Your task to perform on an android device: Clear the cart on ebay.com. Add "bose soundlink" to the cart on ebay.com Image 0: 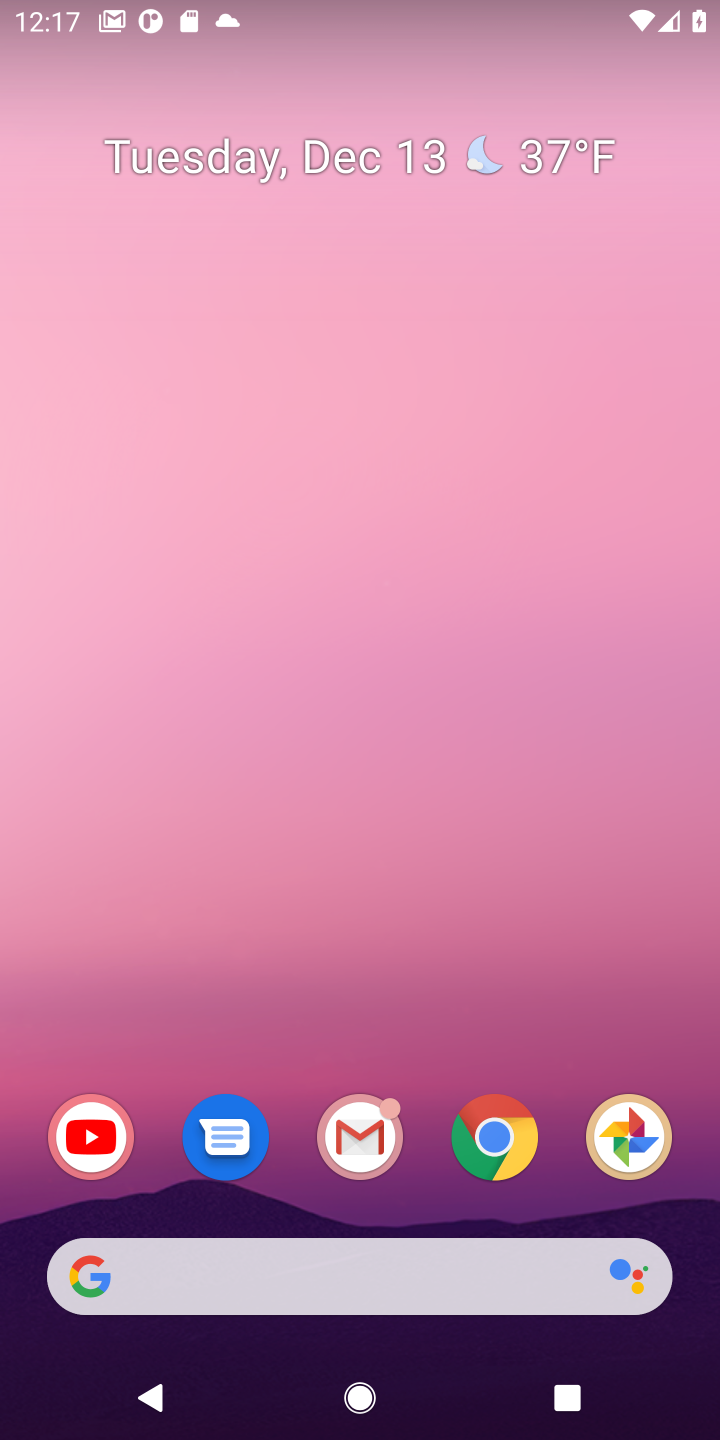
Step 0: click (444, 1241)
Your task to perform on an android device: Clear the cart on ebay.com. Add "bose soundlink" to the cart on ebay.com Image 1: 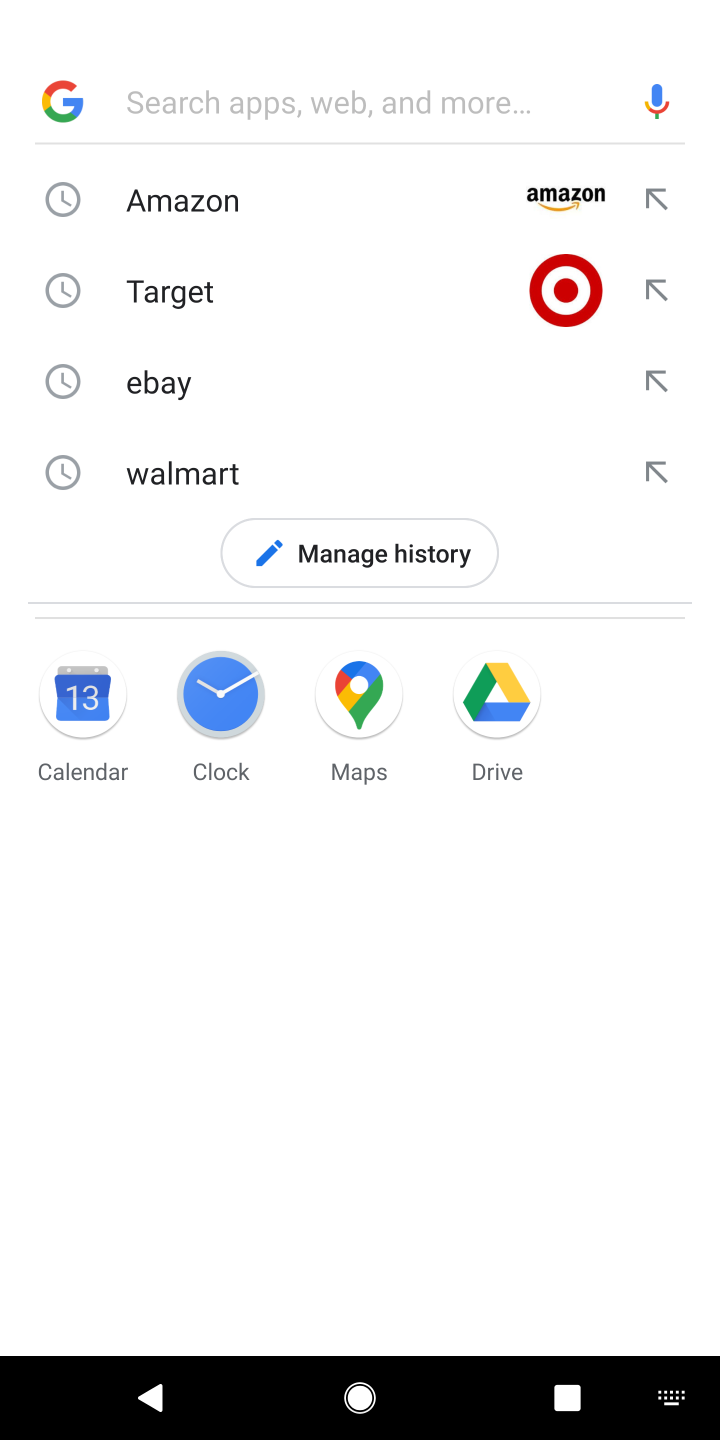
Step 1: click (239, 416)
Your task to perform on an android device: Clear the cart on ebay.com. Add "bose soundlink" to the cart on ebay.com Image 2: 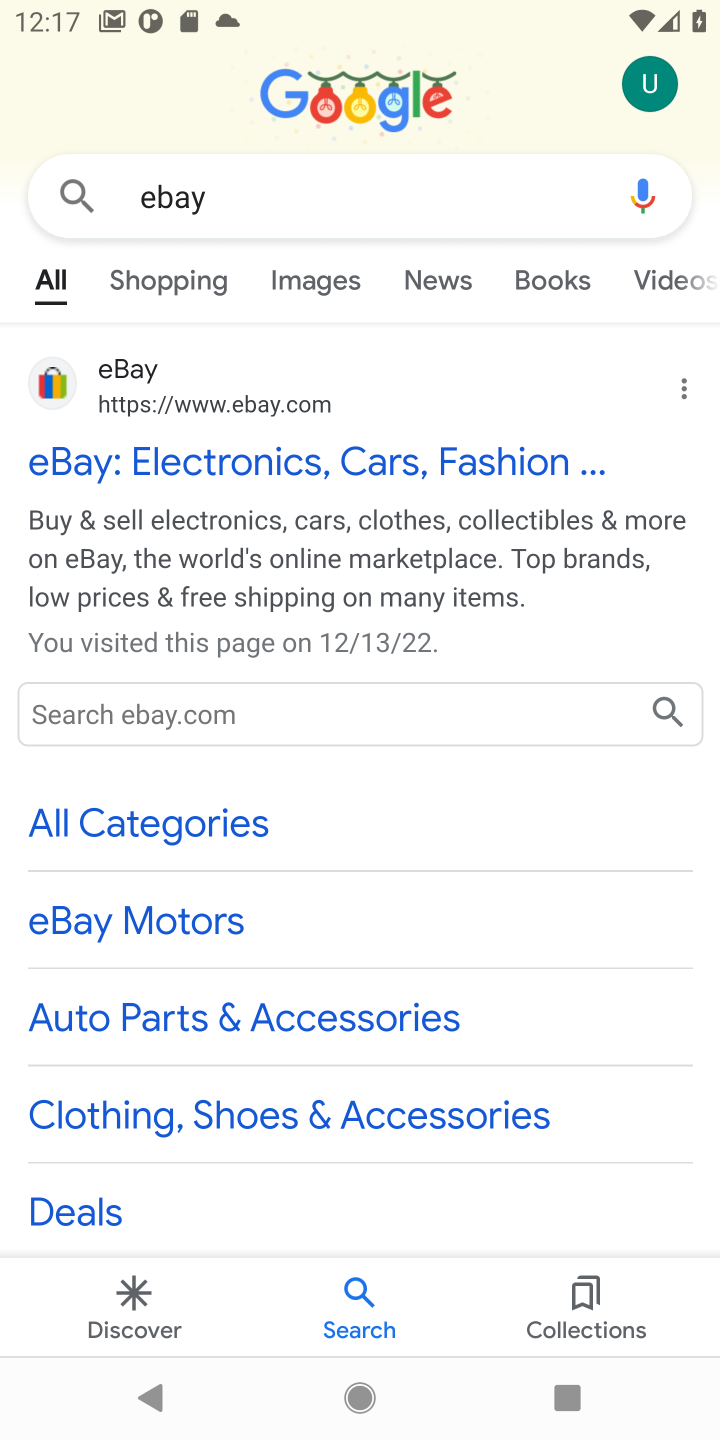
Step 2: click (163, 455)
Your task to perform on an android device: Clear the cart on ebay.com. Add "bose soundlink" to the cart on ebay.com Image 3: 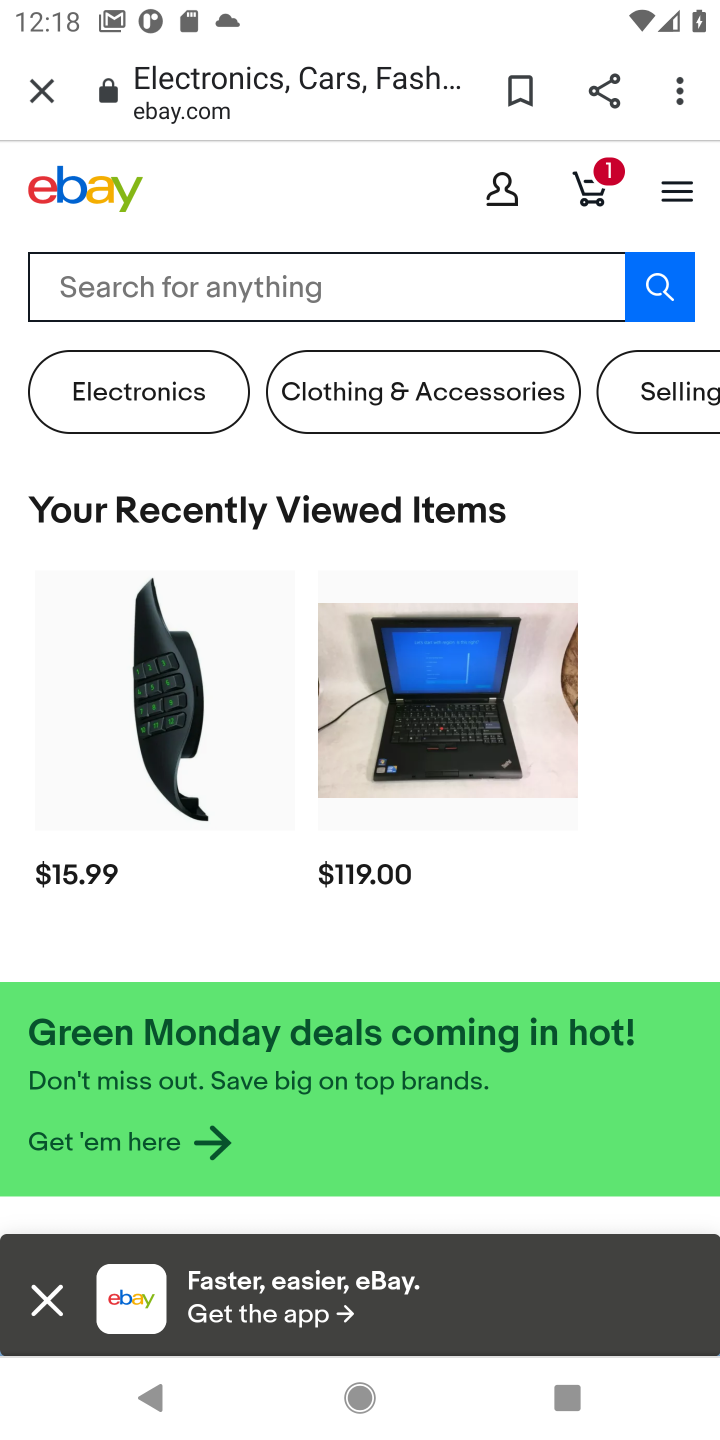
Step 3: click (205, 304)
Your task to perform on an android device: Clear the cart on ebay.com. Add "bose soundlink" to the cart on ebay.com Image 4: 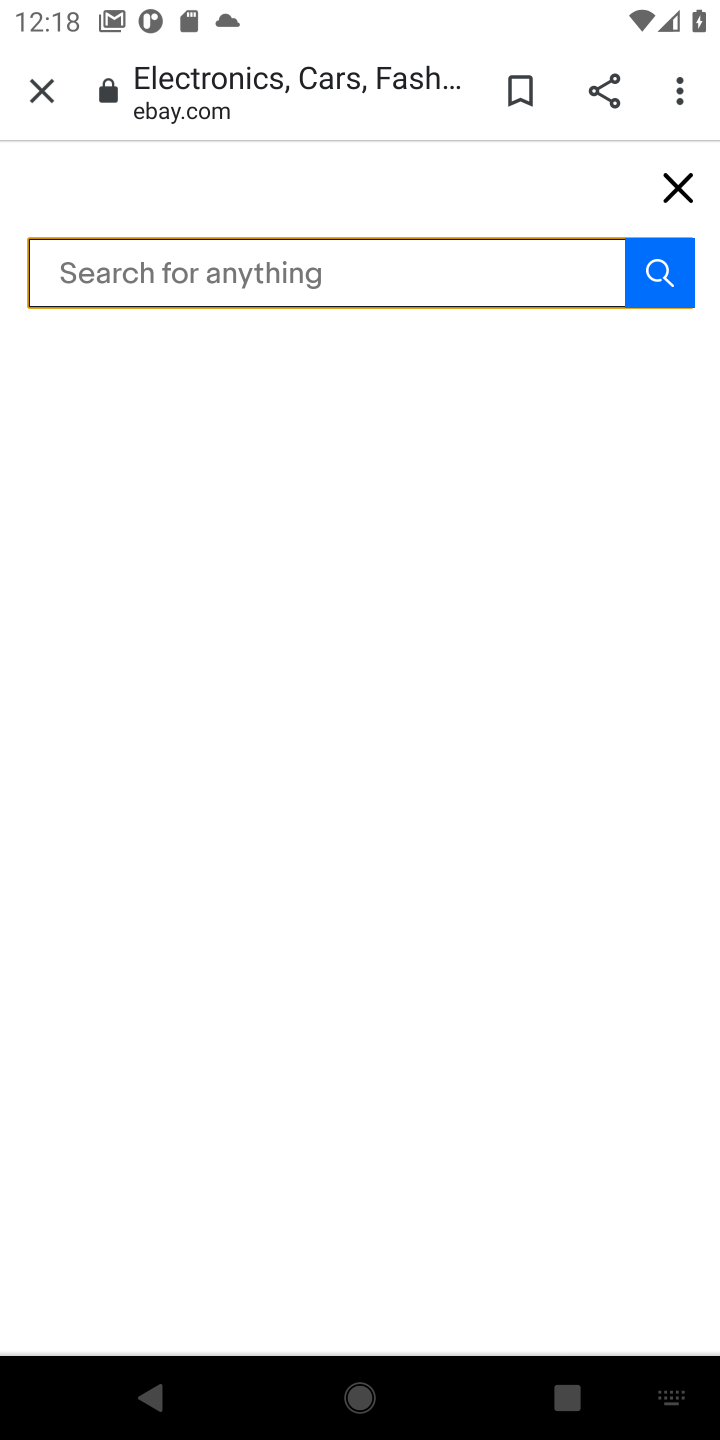
Step 4: type "bose soundlink"
Your task to perform on an android device: Clear the cart on ebay.com. Add "bose soundlink" to the cart on ebay.com Image 5: 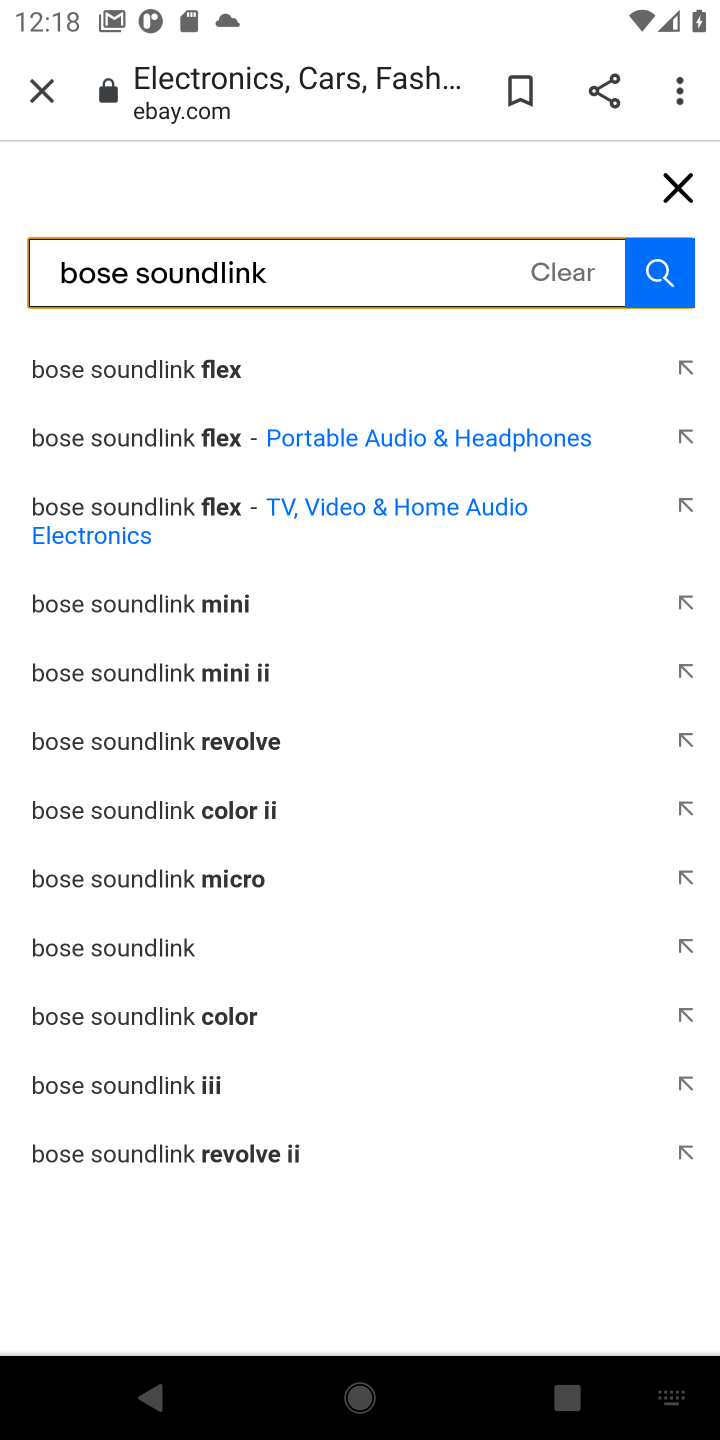
Step 5: click (208, 619)
Your task to perform on an android device: Clear the cart on ebay.com. Add "bose soundlink" to the cart on ebay.com Image 6: 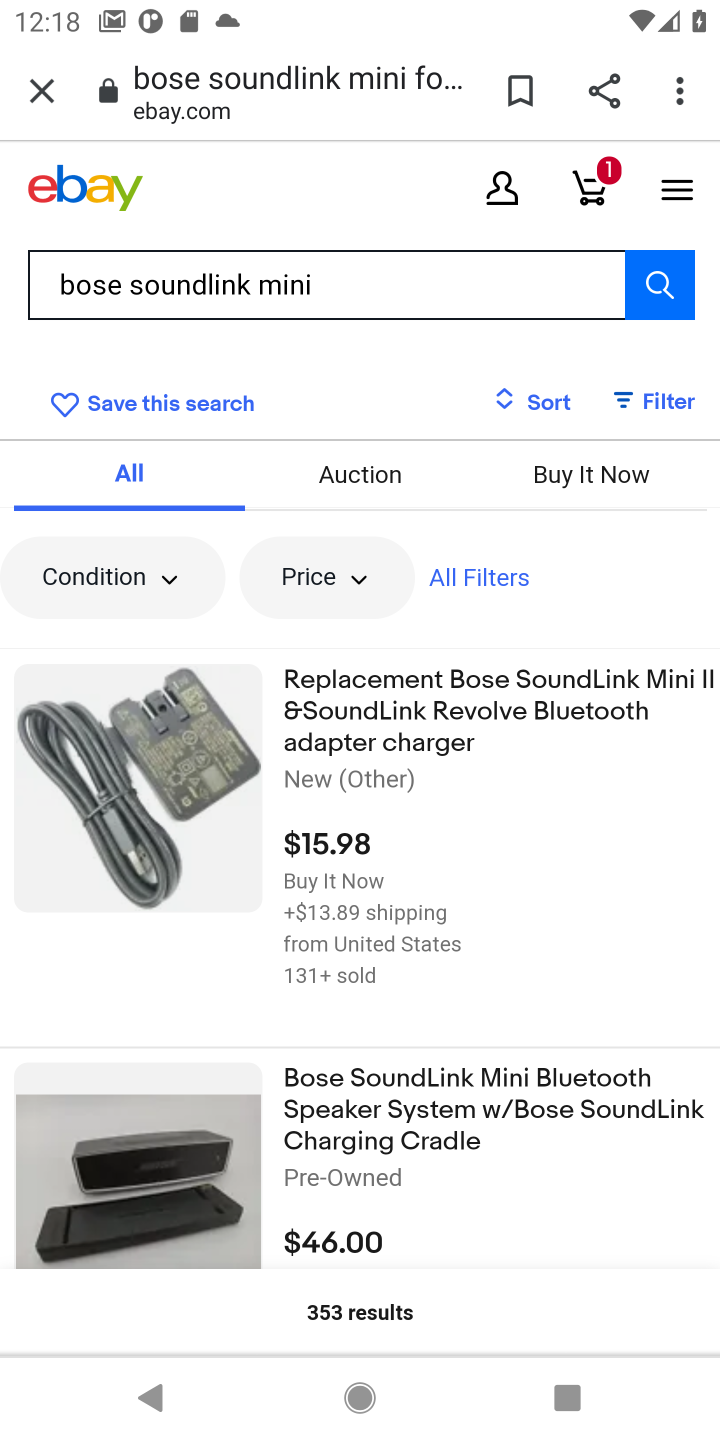
Step 6: click (674, 286)
Your task to perform on an android device: Clear the cart on ebay.com. Add "bose soundlink" to the cart on ebay.com Image 7: 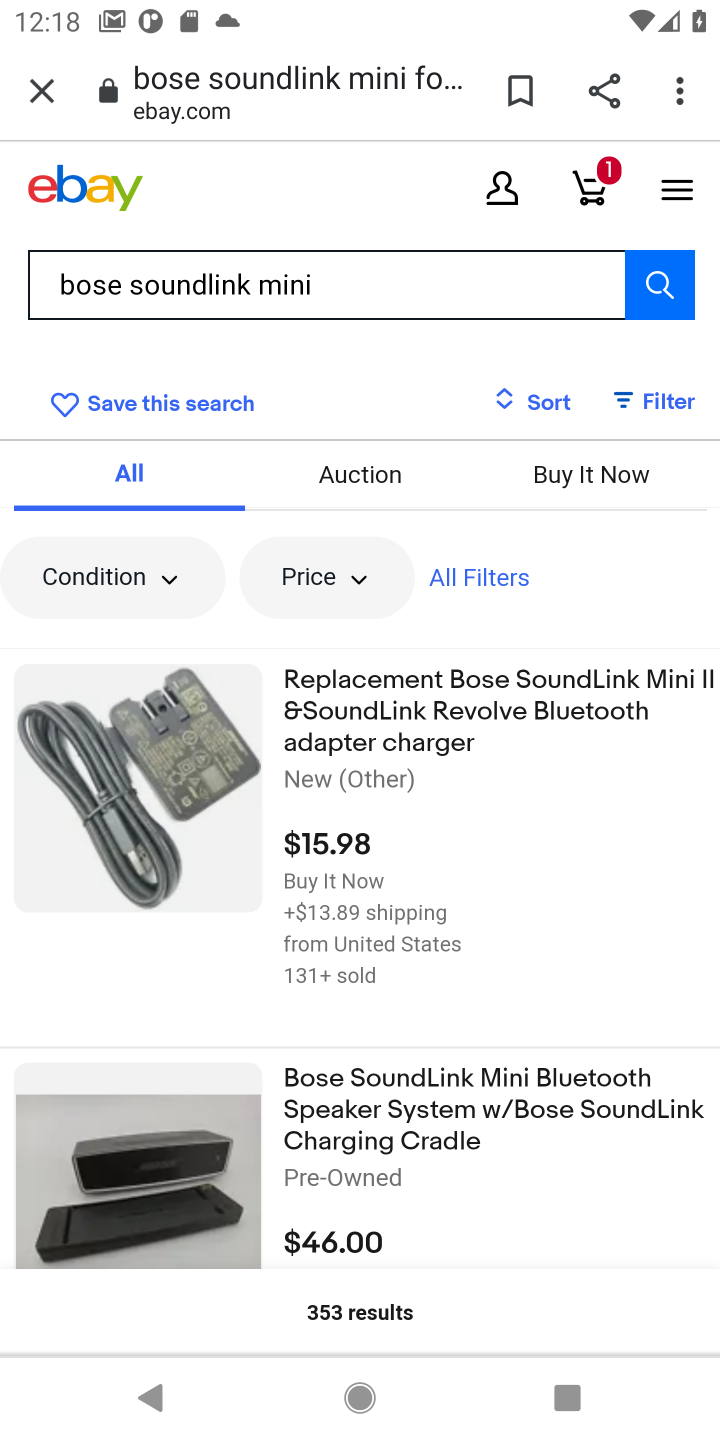
Step 7: click (469, 1126)
Your task to perform on an android device: Clear the cart on ebay.com. Add "bose soundlink" to the cart on ebay.com Image 8: 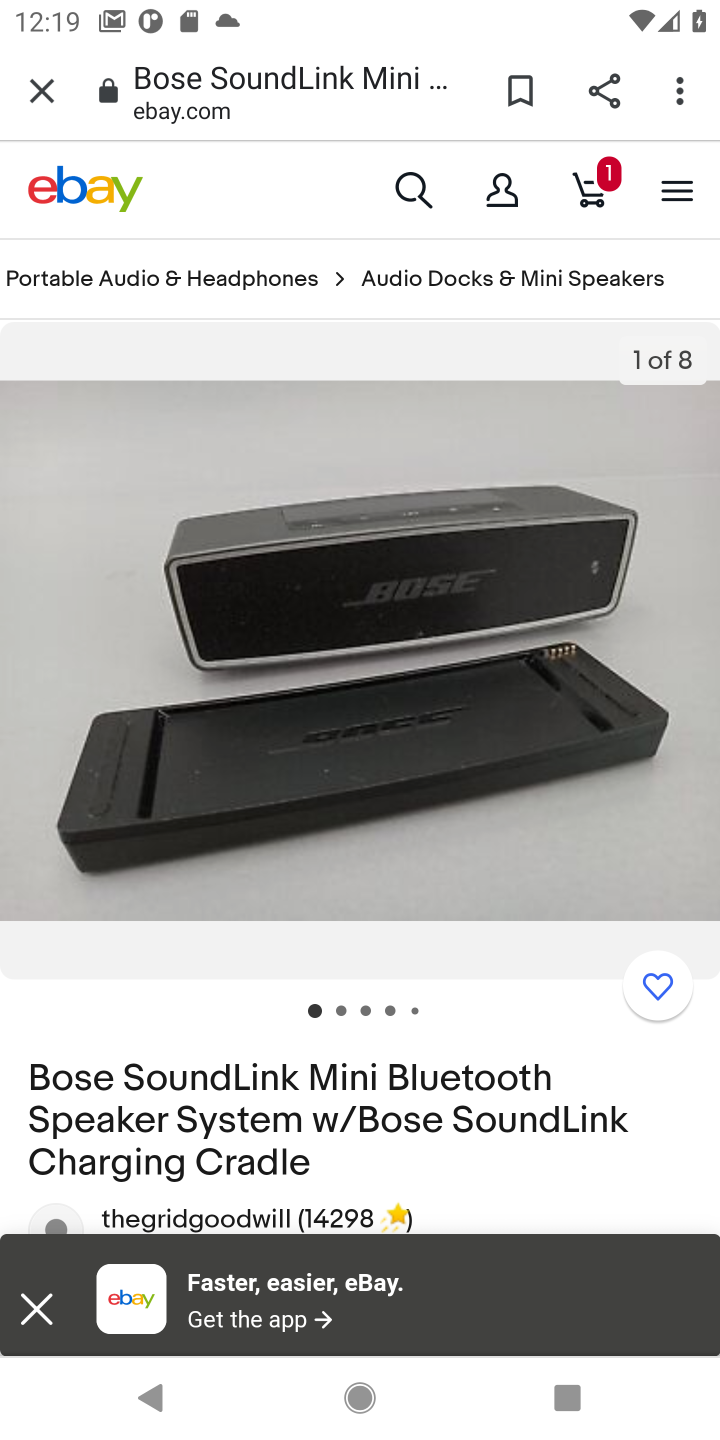
Step 8: drag from (143, 1123) to (355, 412)
Your task to perform on an android device: Clear the cart on ebay.com. Add "bose soundlink" to the cart on ebay.com Image 9: 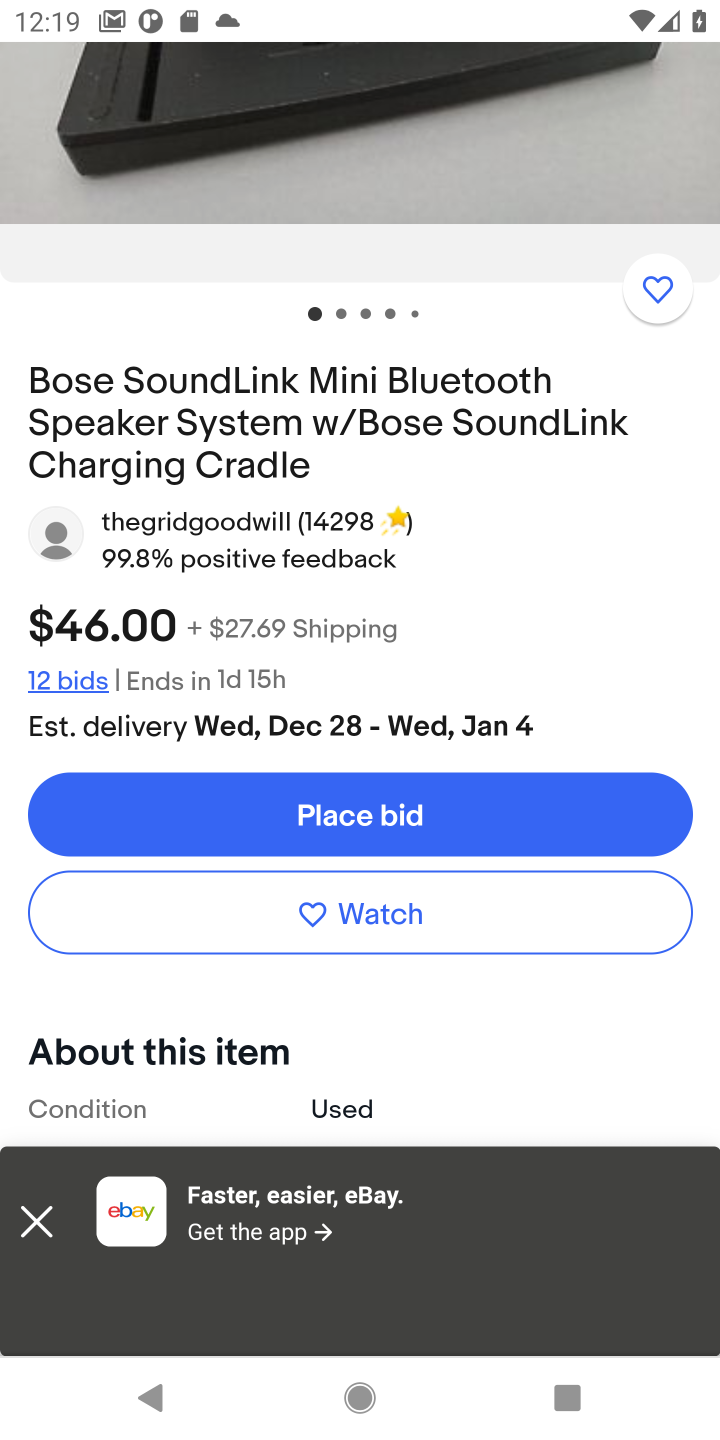
Step 9: click (385, 843)
Your task to perform on an android device: Clear the cart on ebay.com. Add "bose soundlink" to the cart on ebay.com Image 10: 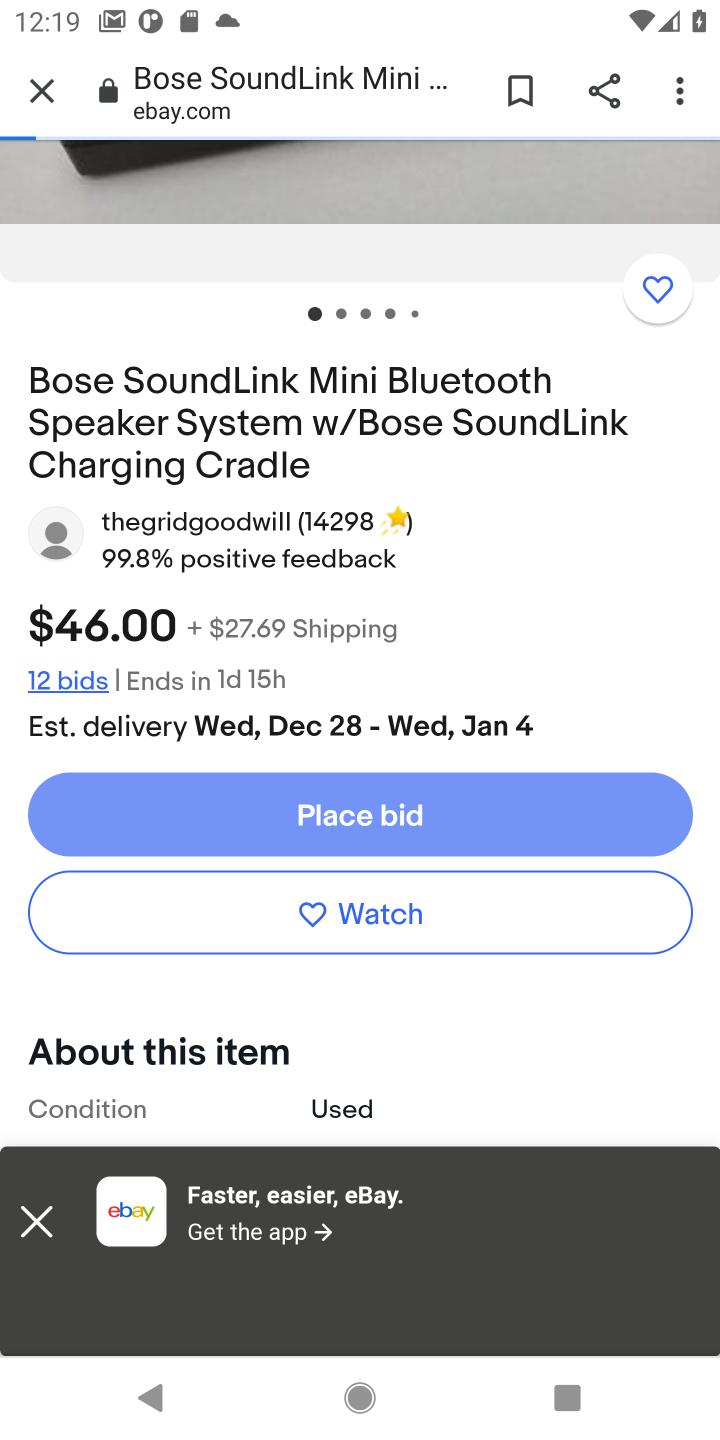
Step 10: task complete